Your task to perform on an android device: see tabs open on other devices in the chrome app Image 0: 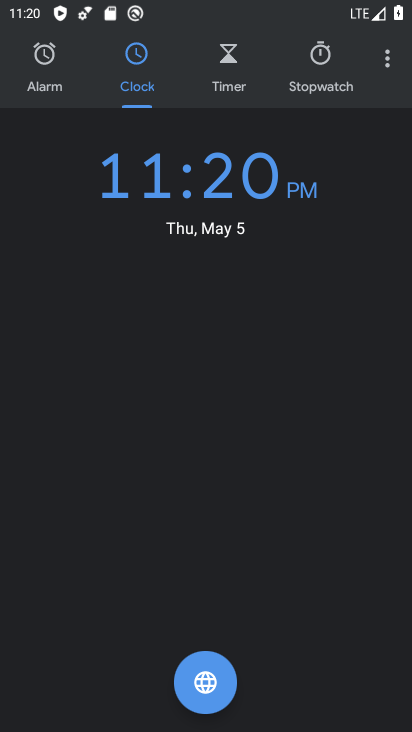
Step 0: press home button
Your task to perform on an android device: see tabs open on other devices in the chrome app Image 1: 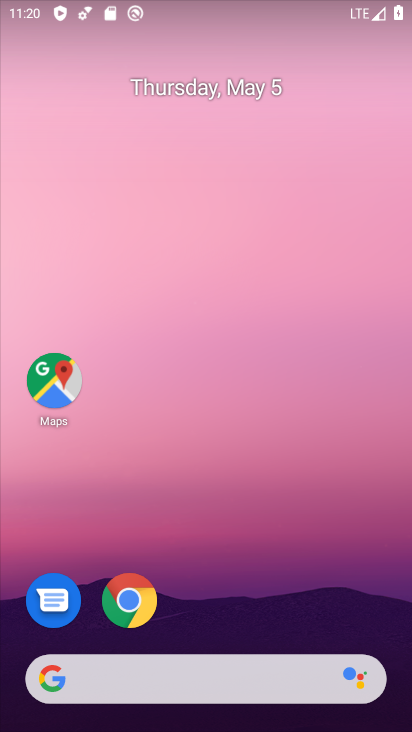
Step 1: drag from (390, 638) to (291, 66)
Your task to perform on an android device: see tabs open on other devices in the chrome app Image 2: 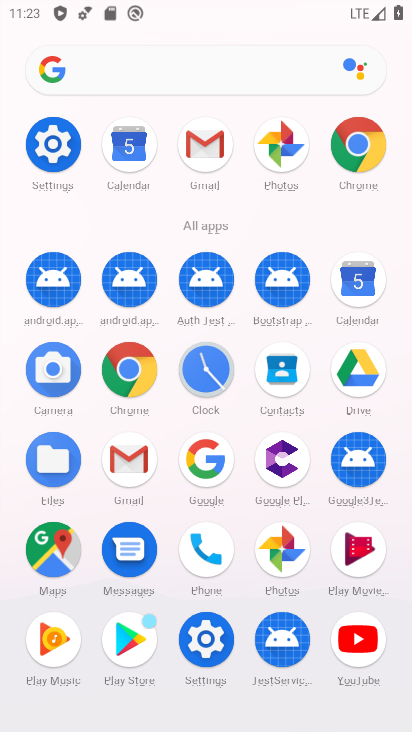
Step 2: click (132, 368)
Your task to perform on an android device: see tabs open on other devices in the chrome app Image 3: 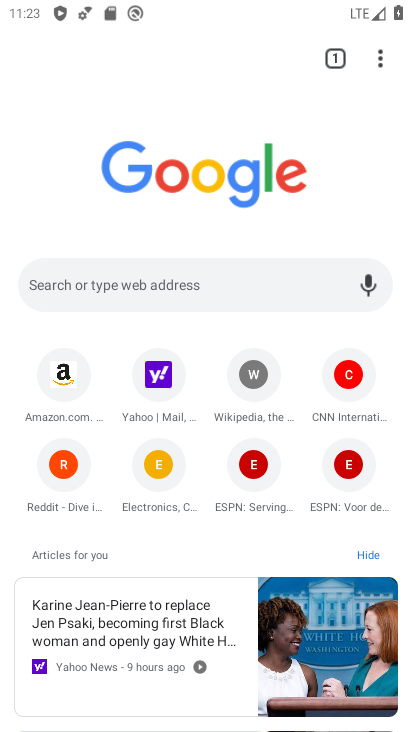
Step 3: task complete